Your task to perform on an android device: Go to network settings Image 0: 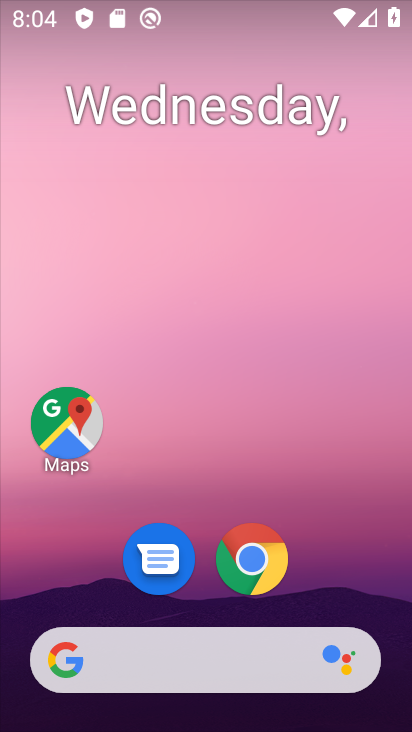
Step 0: drag from (321, 626) to (321, 178)
Your task to perform on an android device: Go to network settings Image 1: 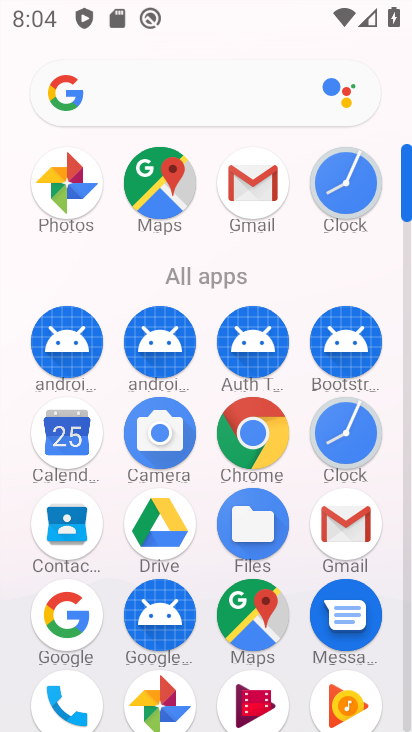
Step 1: drag from (284, 419) to (291, 125)
Your task to perform on an android device: Go to network settings Image 2: 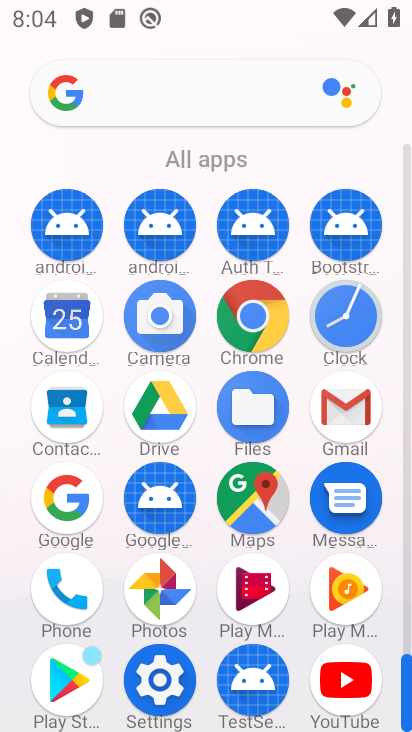
Step 2: click (162, 691)
Your task to perform on an android device: Go to network settings Image 3: 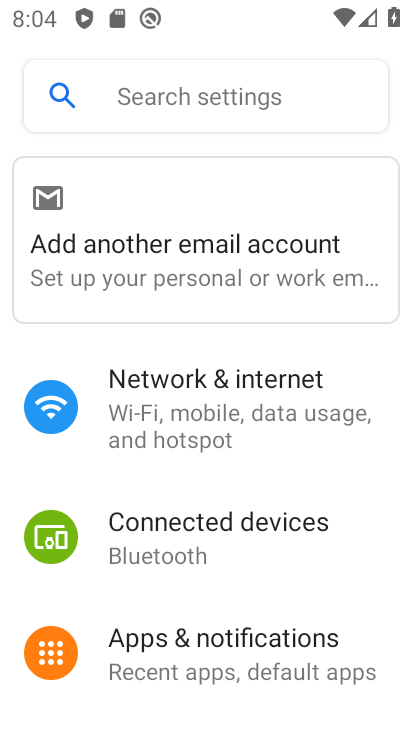
Step 3: click (306, 407)
Your task to perform on an android device: Go to network settings Image 4: 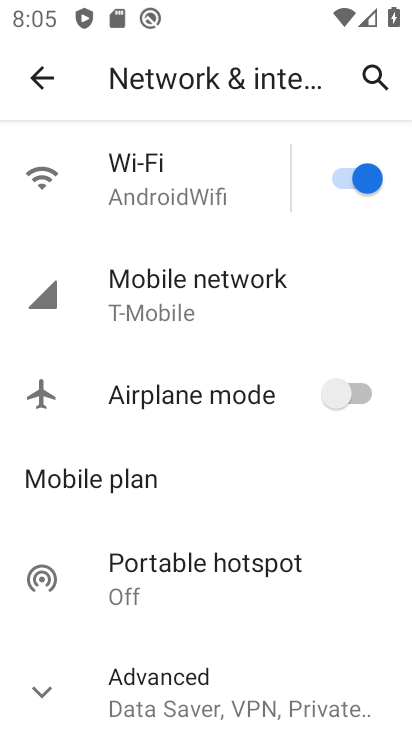
Step 4: click (208, 293)
Your task to perform on an android device: Go to network settings Image 5: 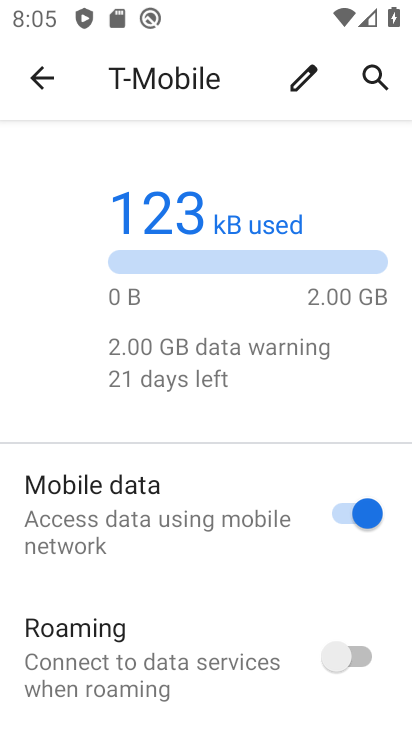
Step 5: task complete